Your task to perform on an android device: What's the weather today? Image 0: 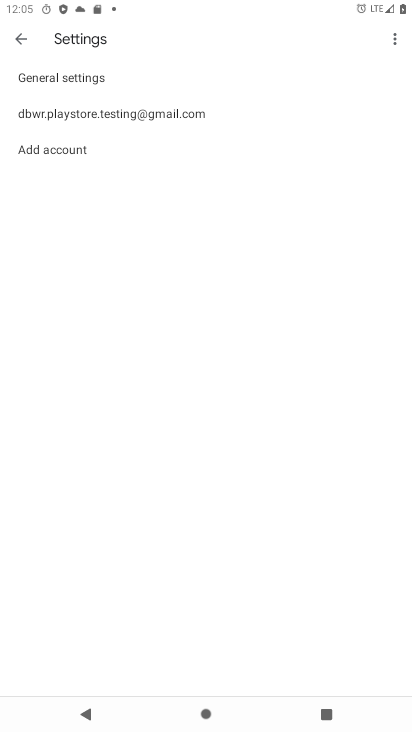
Step 0: press home button
Your task to perform on an android device: What's the weather today? Image 1: 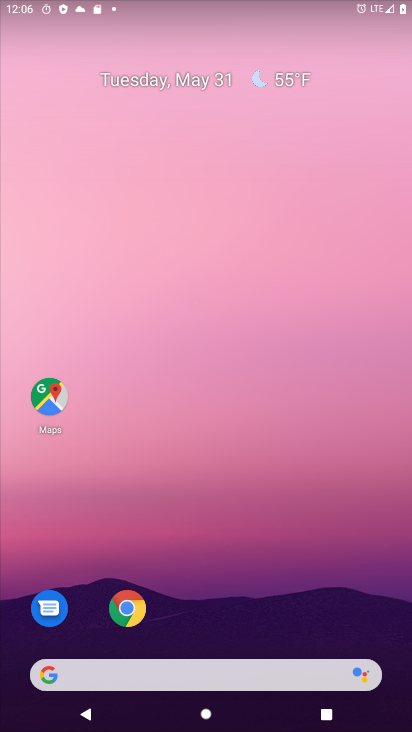
Step 1: click (295, 75)
Your task to perform on an android device: What's the weather today? Image 2: 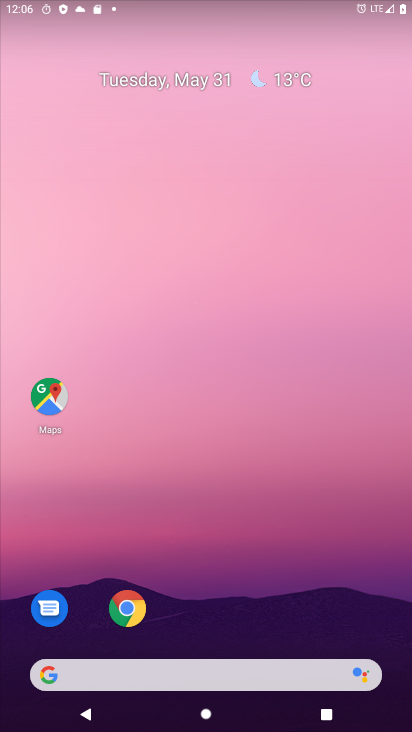
Step 2: click (290, 88)
Your task to perform on an android device: What's the weather today? Image 3: 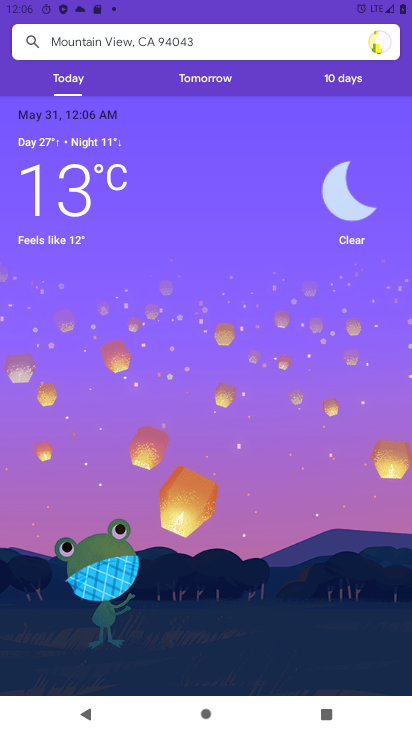
Step 3: task complete